Your task to perform on an android device: delete browsing data in the chrome app Image 0: 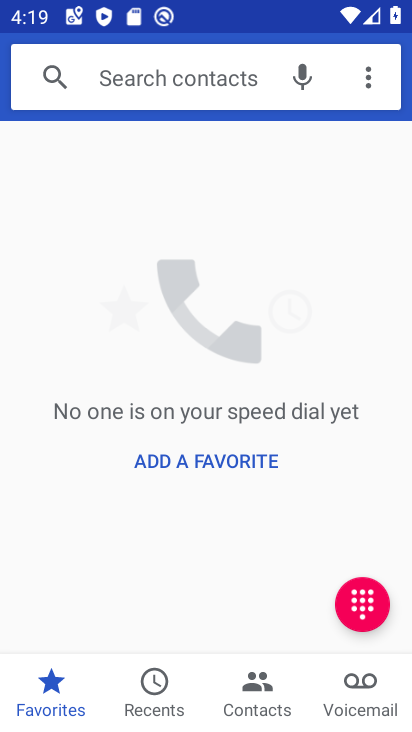
Step 0: press home button
Your task to perform on an android device: delete browsing data in the chrome app Image 1: 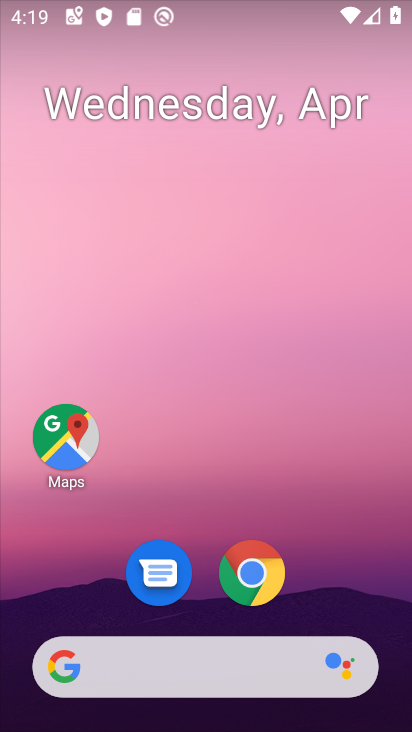
Step 1: click (256, 578)
Your task to perform on an android device: delete browsing data in the chrome app Image 2: 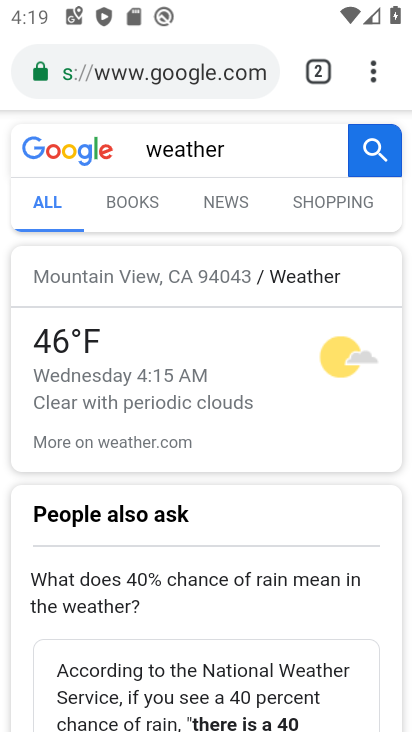
Step 2: click (372, 76)
Your task to perform on an android device: delete browsing data in the chrome app Image 3: 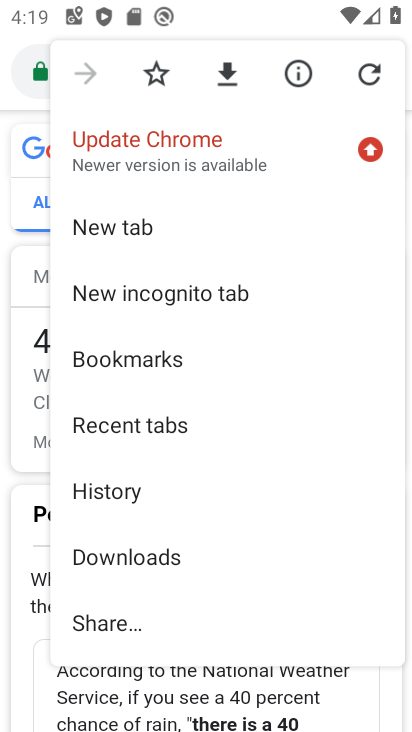
Step 3: drag from (179, 485) to (220, 132)
Your task to perform on an android device: delete browsing data in the chrome app Image 4: 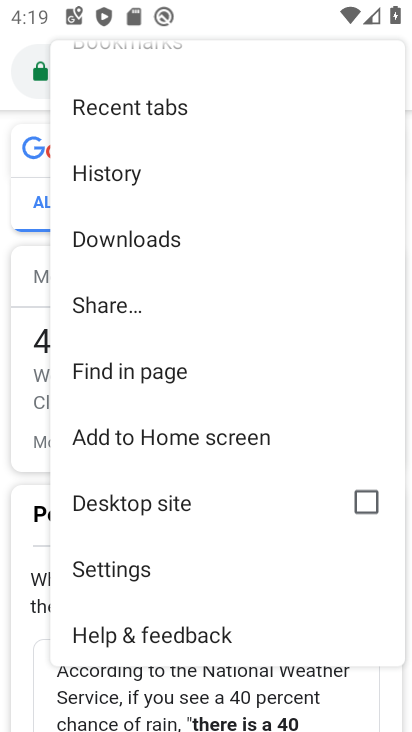
Step 4: drag from (199, 513) to (219, 203)
Your task to perform on an android device: delete browsing data in the chrome app Image 5: 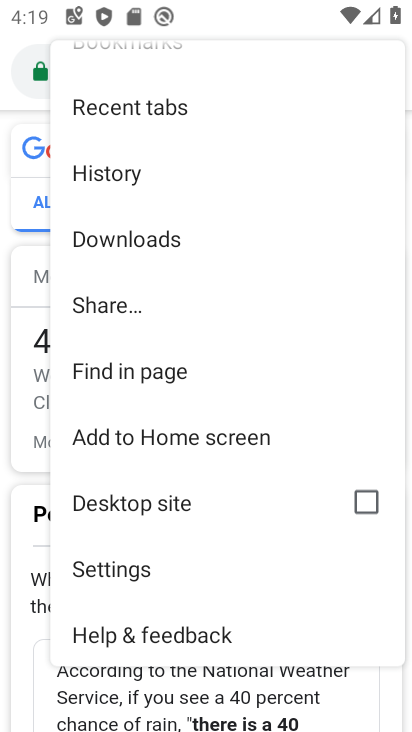
Step 5: click (114, 573)
Your task to perform on an android device: delete browsing data in the chrome app Image 6: 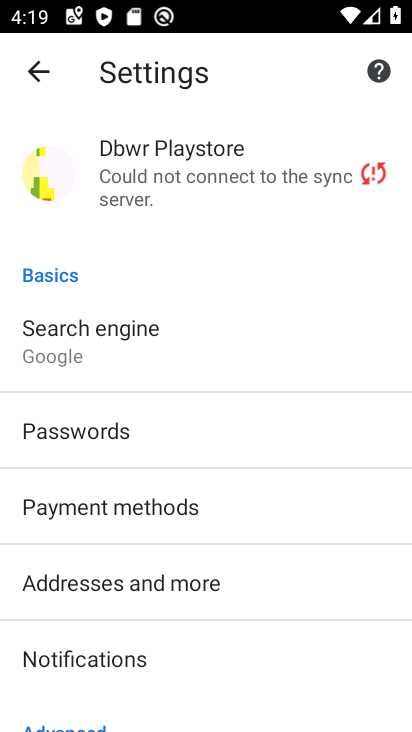
Step 6: drag from (245, 527) to (254, 244)
Your task to perform on an android device: delete browsing data in the chrome app Image 7: 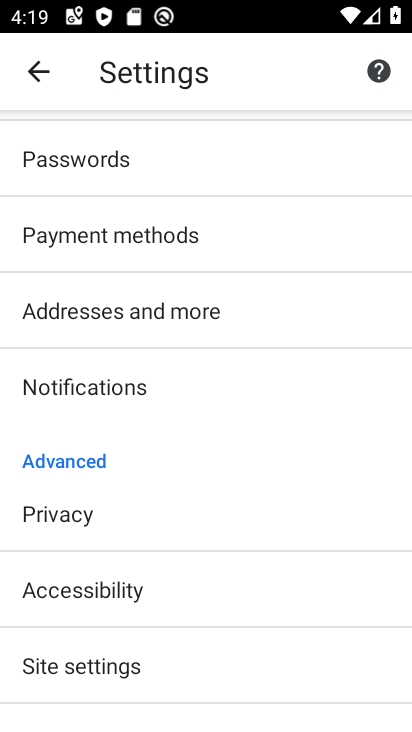
Step 7: click (62, 523)
Your task to perform on an android device: delete browsing data in the chrome app Image 8: 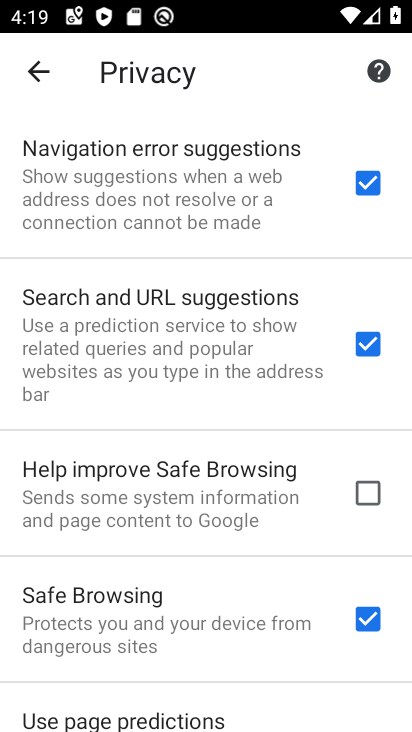
Step 8: drag from (120, 579) to (137, 240)
Your task to perform on an android device: delete browsing data in the chrome app Image 9: 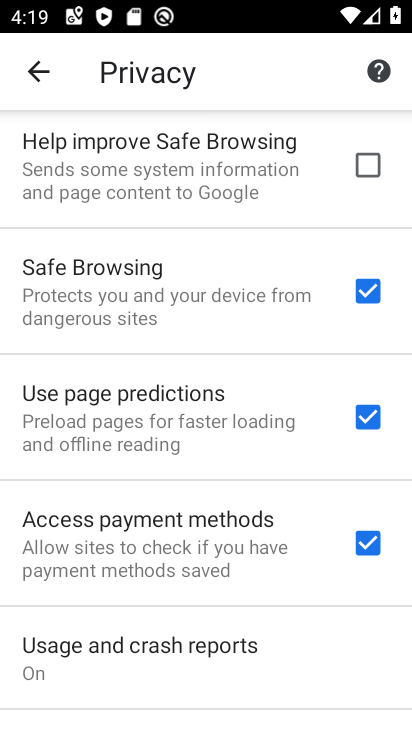
Step 9: drag from (138, 556) to (154, 192)
Your task to perform on an android device: delete browsing data in the chrome app Image 10: 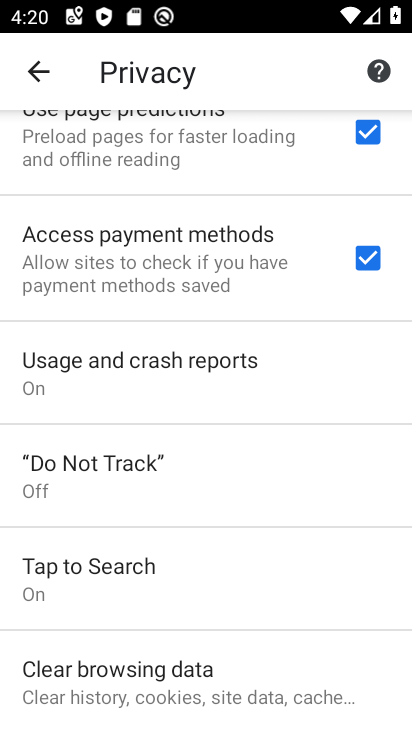
Step 10: click (143, 672)
Your task to perform on an android device: delete browsing data in the chrome app Image 11: 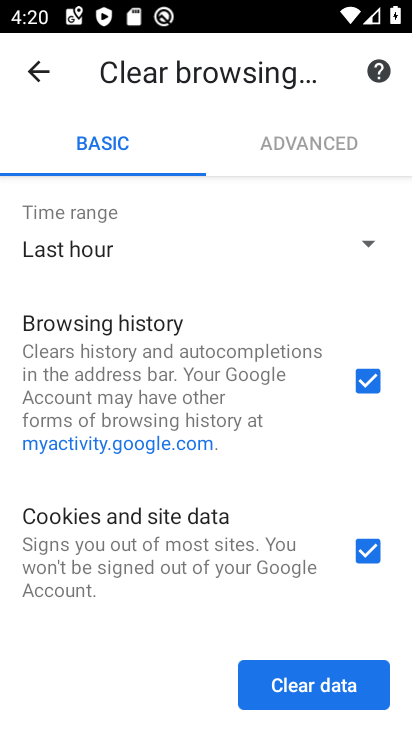
Step 11: click (356, 546)
Your task to perform on an android device: delete browsing data in the chrome app Image 12: 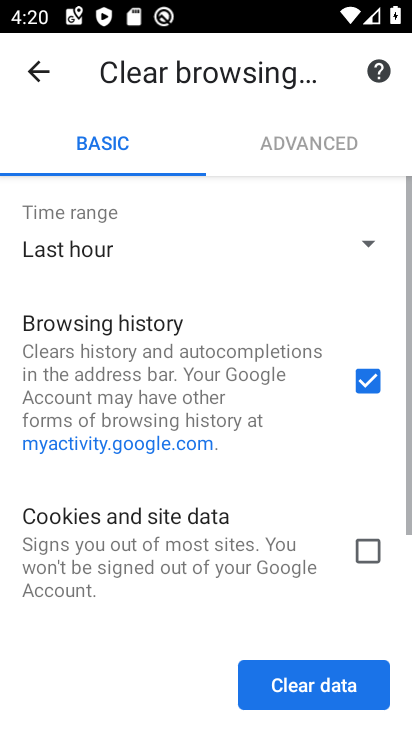
Step 12: drag from (158, 527) to (160, 228)
Your task to perform on an android device: delete browsing data in the chrome app Image 13: 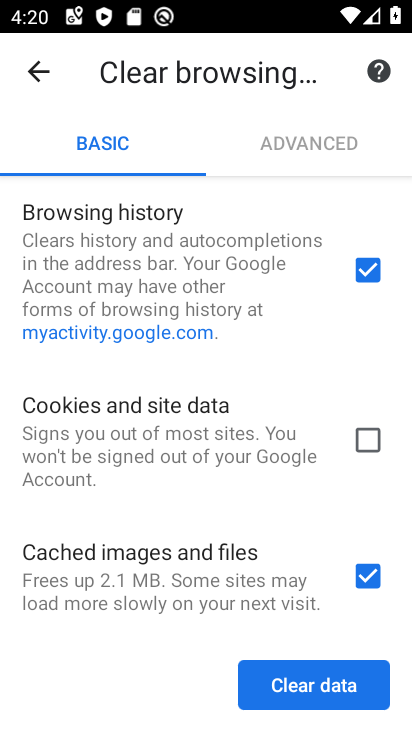
Step 13: click (363, 582)
Your task to perform on an android device: delete browsing data in the chrome app Image 14: 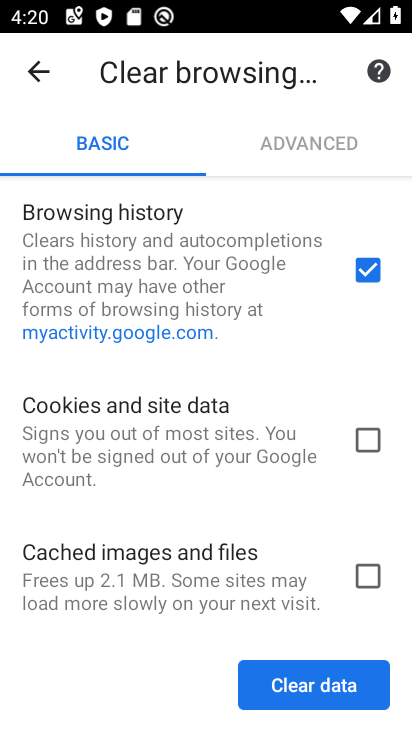
Step 14: click (324, 695)
Your task to perform on an android device: delete browsing data in the chrome app Image 15: 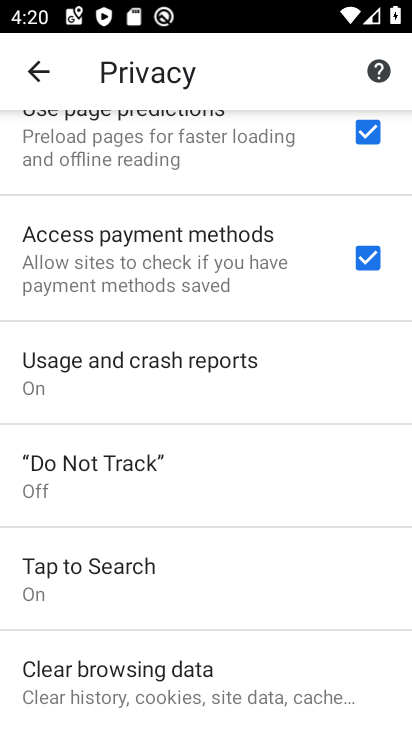
Step 15: task complete